Your task to perform on an android device: toggle improve location accuracy Image 0: 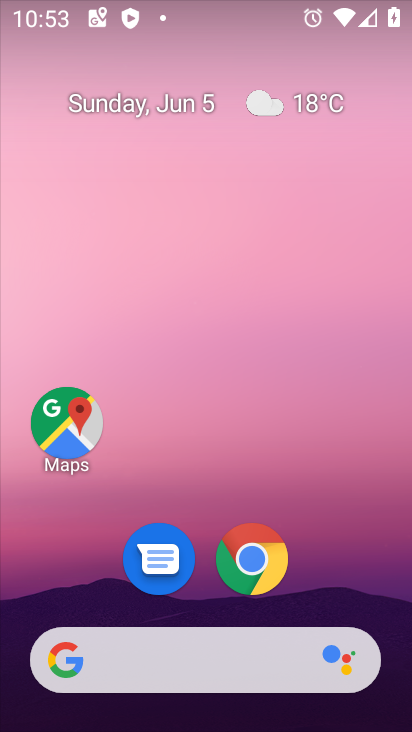
Step 0: press home button
Your task to perform on an android device: toggle improve location accuracy Image 1: 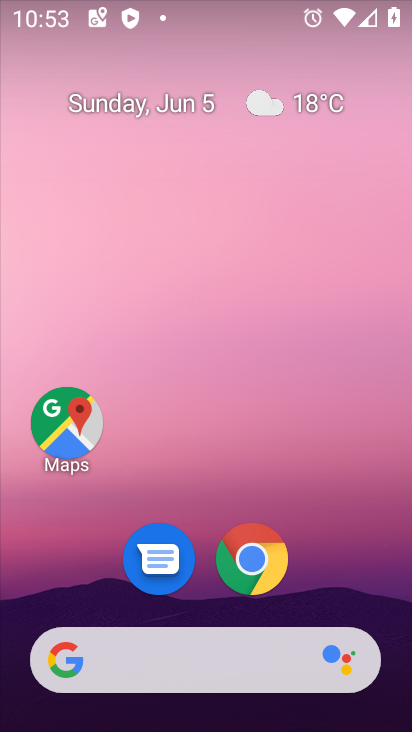
Step 1: drag from (395, 692) to (310, 60)
Your task to perform on an android device: toggle improve location accuracy Image 2: 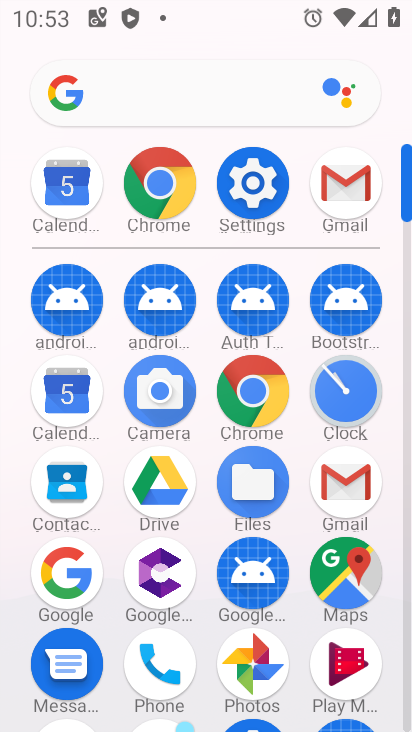
Step 2: click (269, 171)
Your task to perform on an android device: toggle improve location accuracy Image 3: 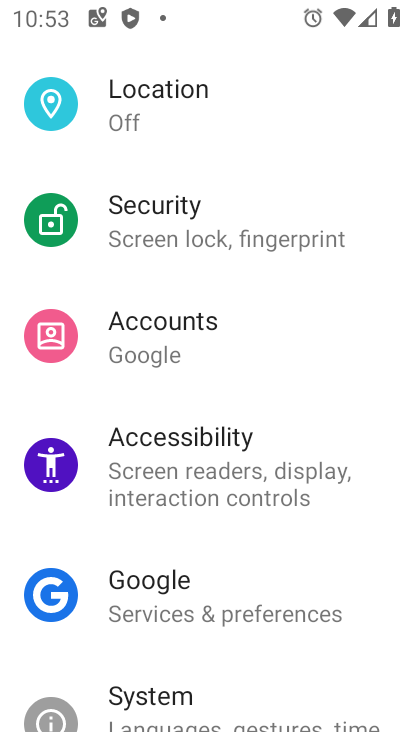
Step 3: drag from (226, 690) to (211, 237)
Your task to perform on an android device: toggle improve location accuracy Image 4: 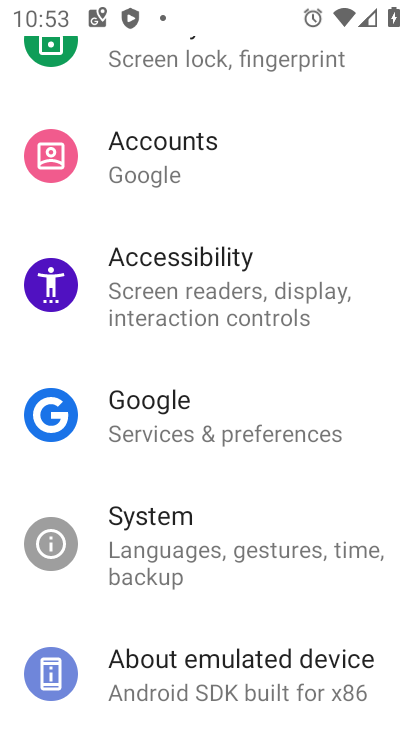
Step 4: drag from (177, 105) to (204, 634)
Your task to perform on an android device: toggle improve location accuracy Image 5: 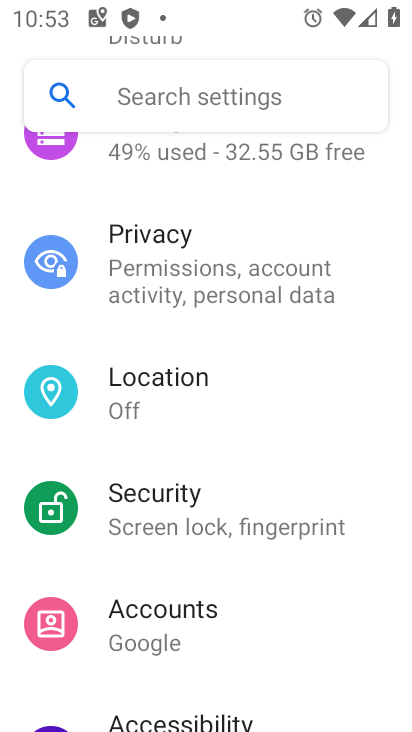
Step 5: click (133, 402)
Your task to perform on an android device: toggle improve location accuracy Image 6: 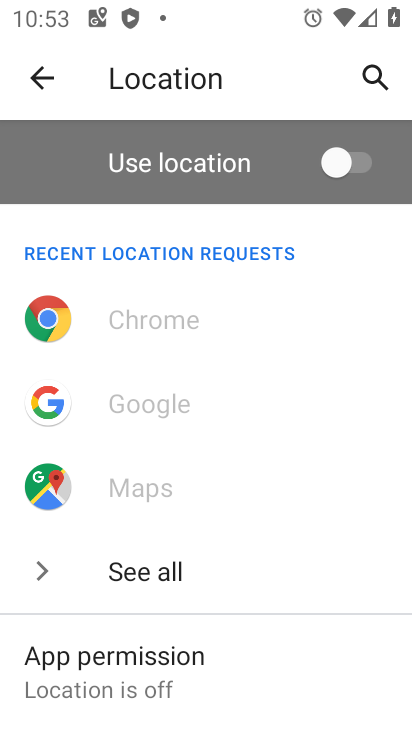
Step 6: drag from (208, 659) to (166, 128)
Your task to perform on an android device: toggle improve location accuracy Image 7: 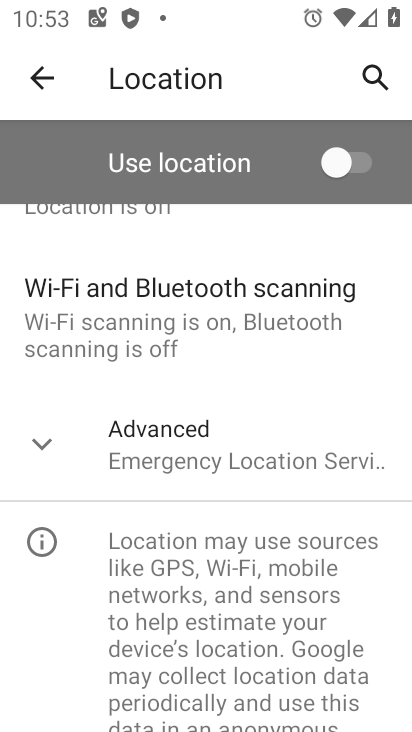
Step 7: click (103, 435)
Your task to perform on an android device: toggle improve location accuracy Image 8: 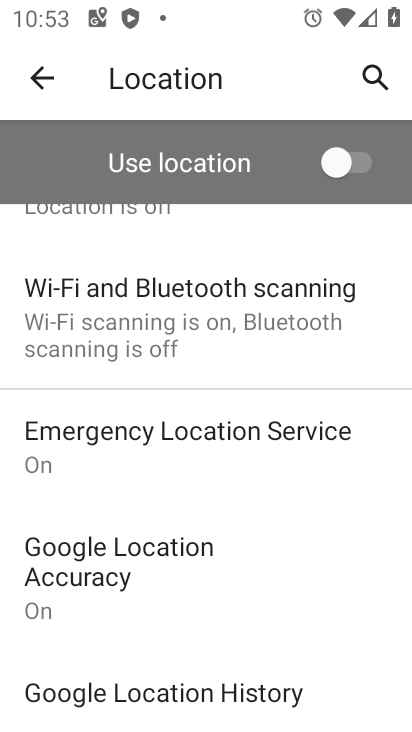
Step 8: click (114, 570)
Your task to perform on an android device: toggle improve location accuracy Image 9: 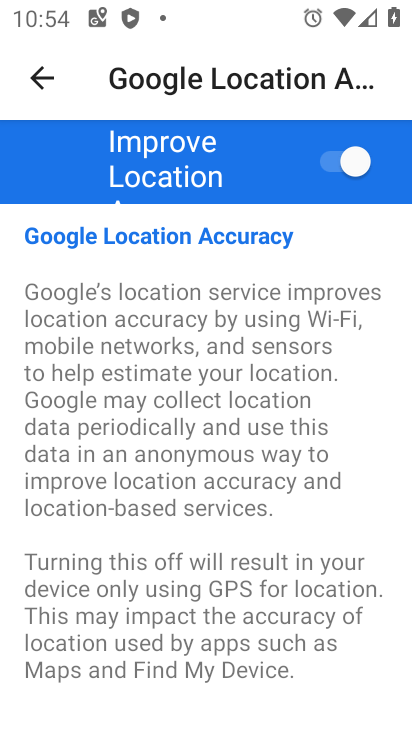
Step 9: click (340, 161)
Your task to perform on an android device: toggle improve location accuracy Image 10: 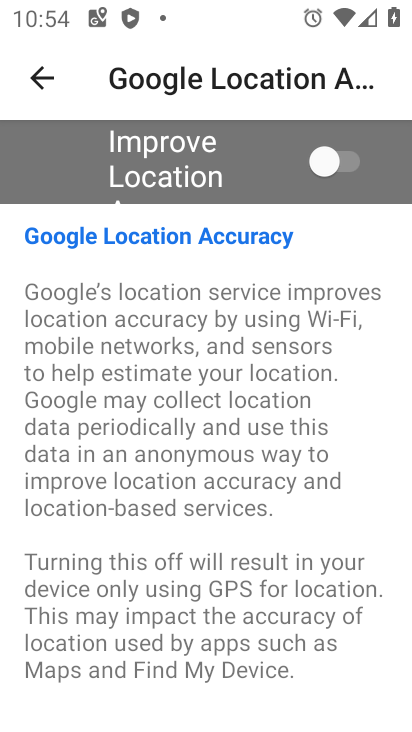
Step 10: task complete